Your task to perform on an android device: turn pop-ups on in chrome Image 0: 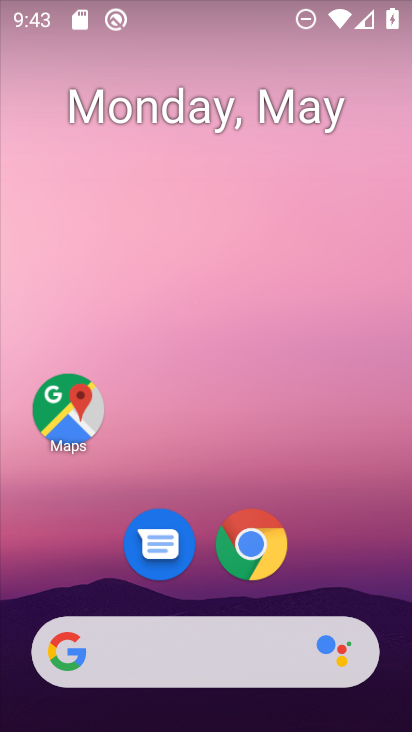
Step 0: drag from (351, 489) to (315, 191)
Your task to perform on an android device: turn pop-ups on in chrome Image 1: 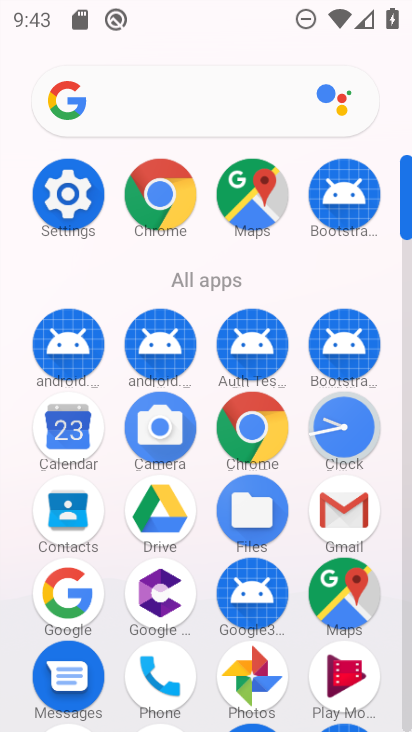
Step 1: click (269, 444)
Your task to perform on an android device: turn pop-ups on in chrome Image 2: 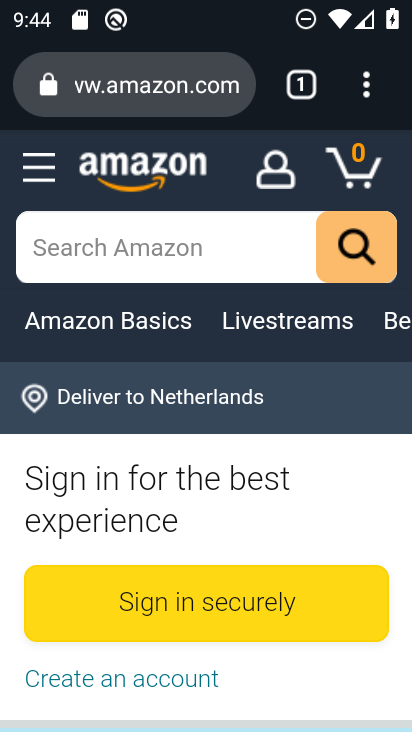
Step 2: drag from (365, 102) to (180, 612)
Your task to perform on an android device: turn pop-ups on in chrome Image 3: 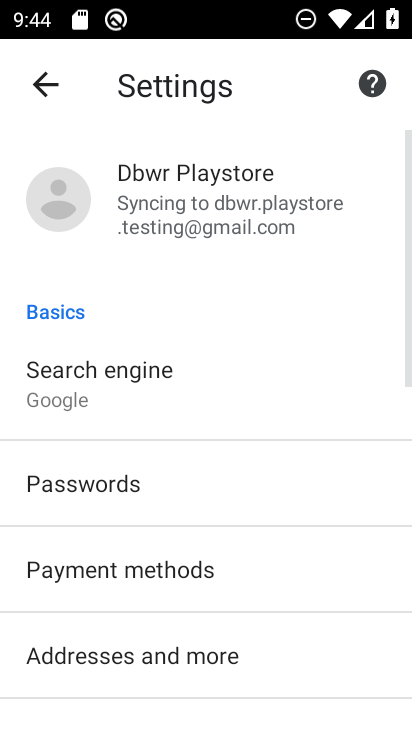
Step 3: drag from (343, 690) to (322, 233)
Your task to perform on an android device: turn pop-ups on in chrome Image 4: 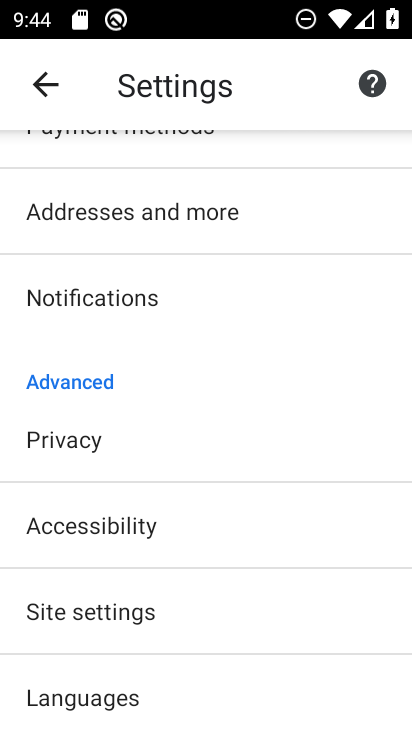
Step 4: drag from (233, 674) to (275, 261)
Your task to perform on an android device: turn pop-ups on in chrome Image 5: 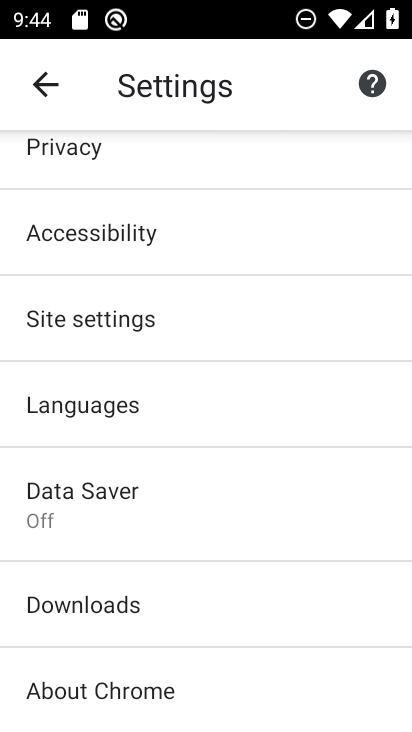
Step 5: drag from (233, 666) to (241, 324)
Your task to perform on an android device: turn pop-ups on in chrome Image 6: 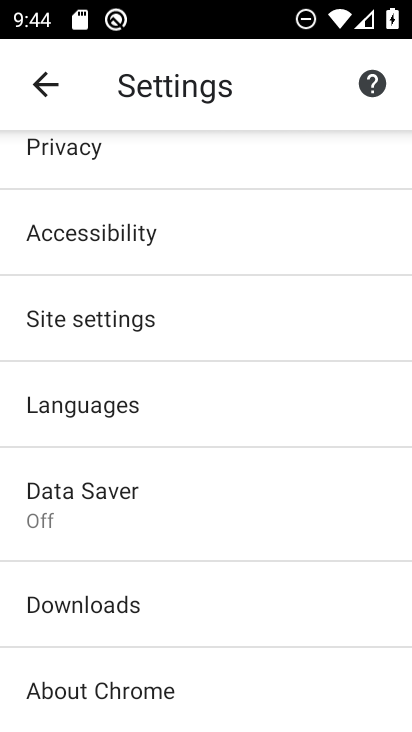
Step 6: click (171, 324)
Your task to perform on an android device: turn pop-ups on in chrome Image 7: 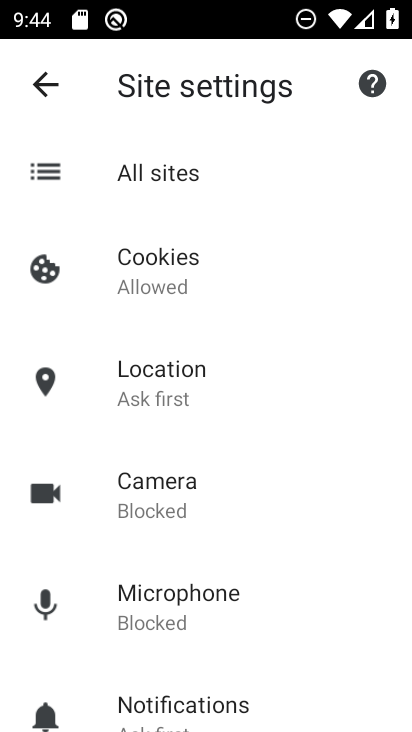
Step 7: drag from (244, 602) to (250, 234)
Your task to perform on an android device: turn pop-ups on in chrome Image 8: 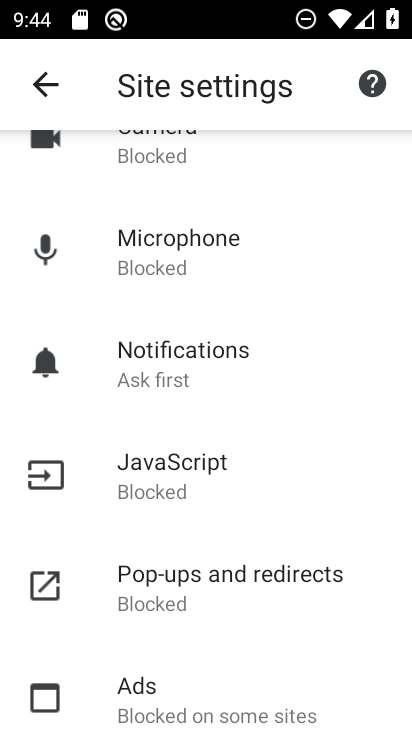
Step 8: click (274, 592)
Your task to perform on an android device: turn pop-ups on in chrome Image 9: 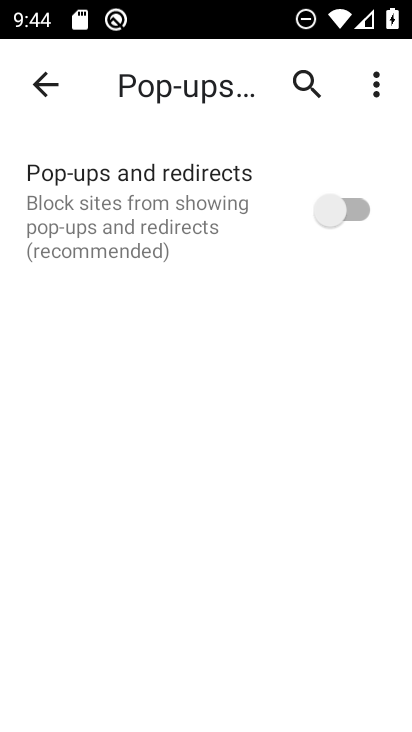
Step 9: click (360, 221)
Your task to perform on an android device: turn pop-ups on in chrome Image 10: 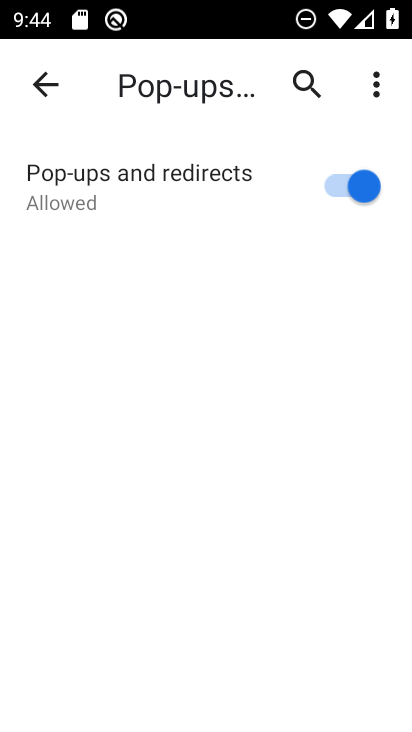
Step 10: task complete